Your task to perform on an android device: Open my contact list Image 0: 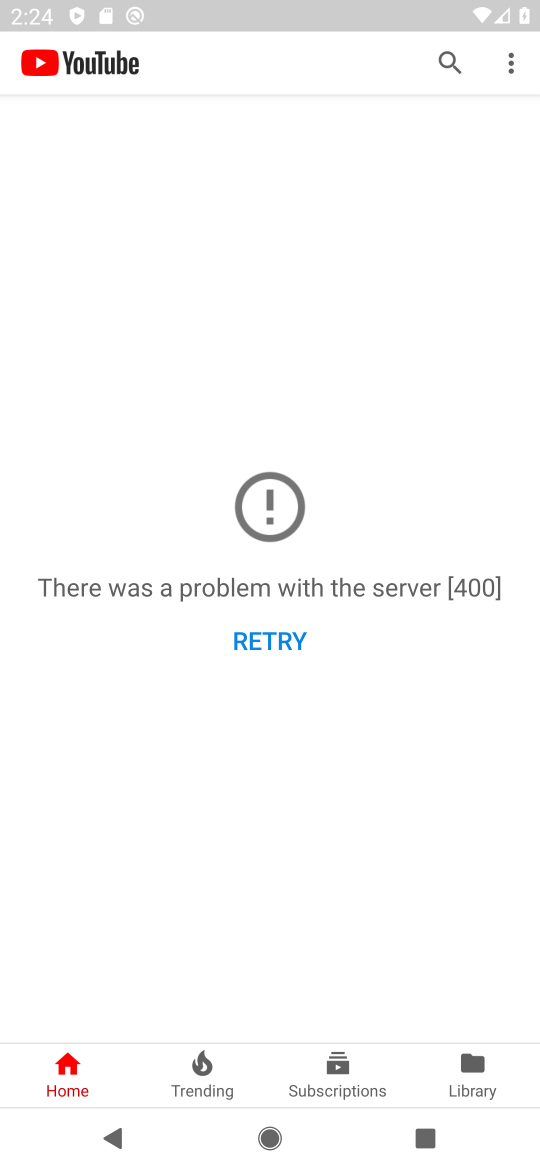
Step 0: press home button
Your task to perform on an android device: Open my contact list Image 1: 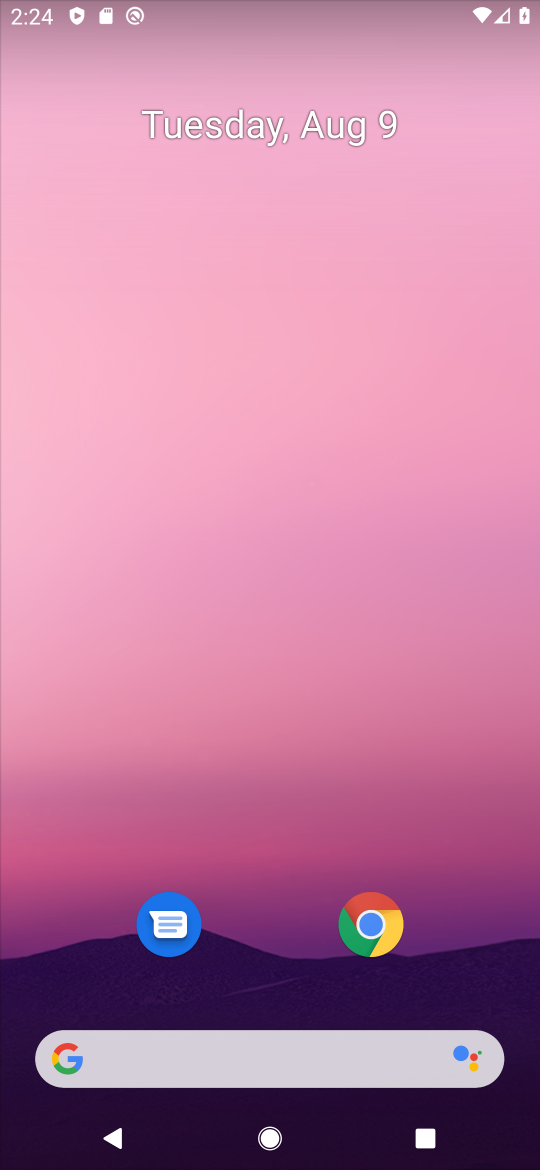
Step 1: drag from (261, 867) to (212, 79)
Your task to perform on an android device: Open my contact list Image 2: 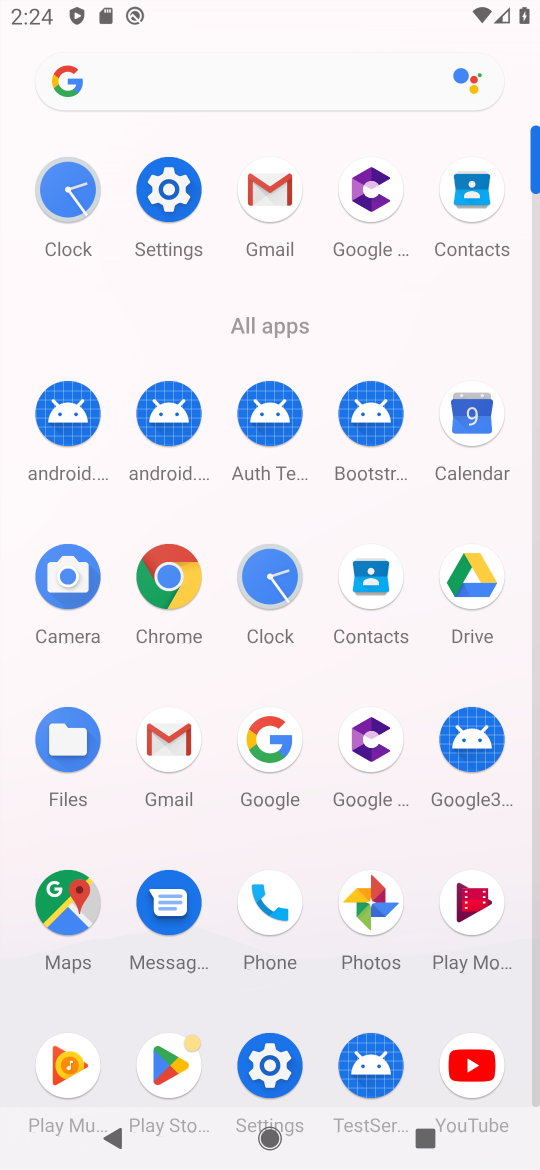
Step 2: click (472, 194)
Your task to perform on an android device: Open my contact list Image 3: 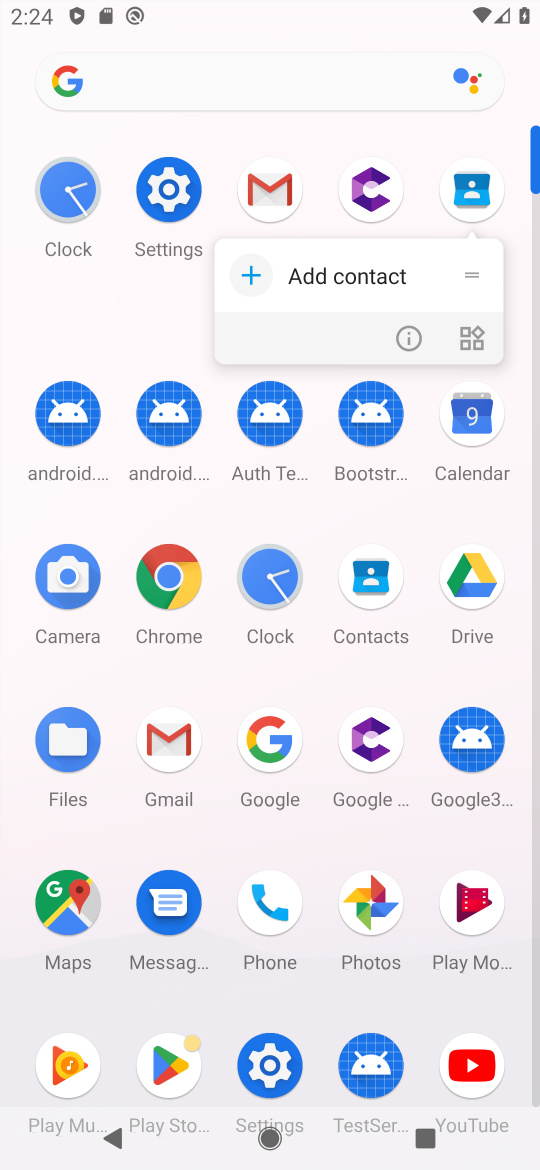
Step 3: click (472, 194)
Your task to perform on an android device: Open my contact list Image 4: 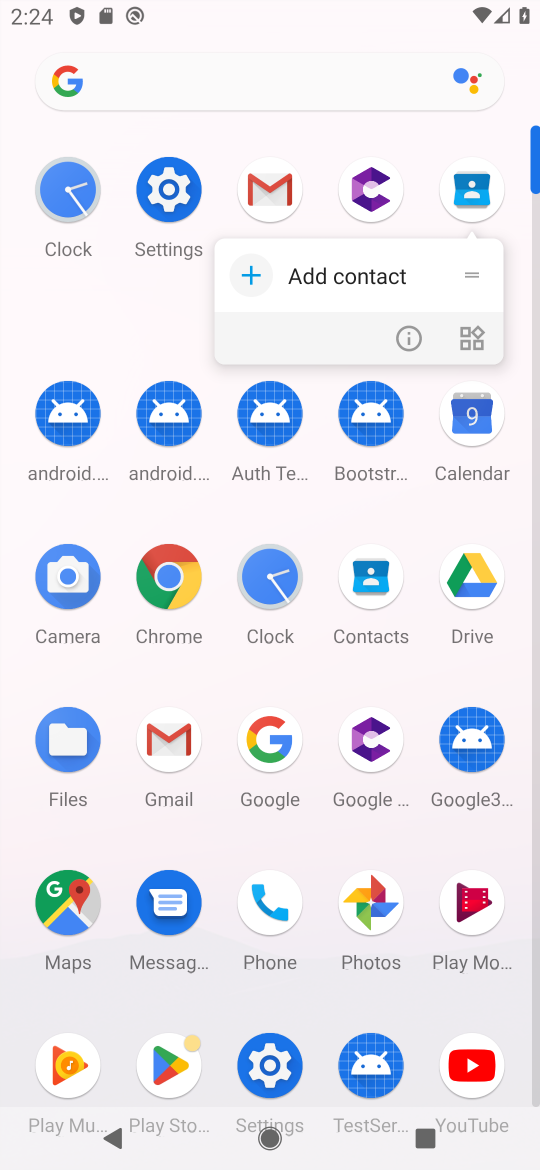
Step 4: click (472, 194)
Your task to perform on an android device: Open my contact list Image 5: 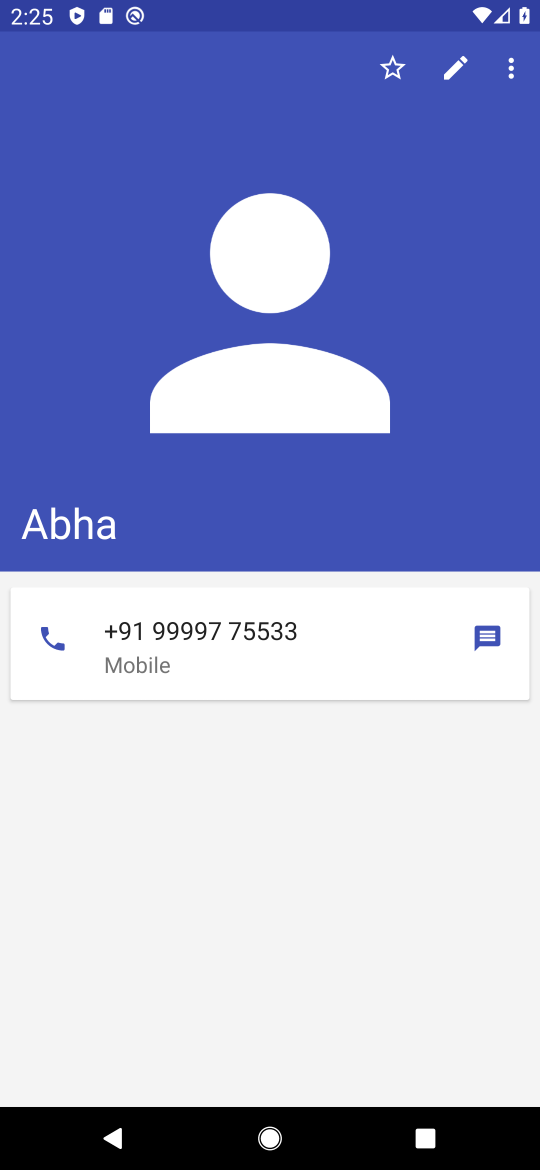
Step 5: task complete